Your task to perform on an android device: Is it going to rain today? Image 0: 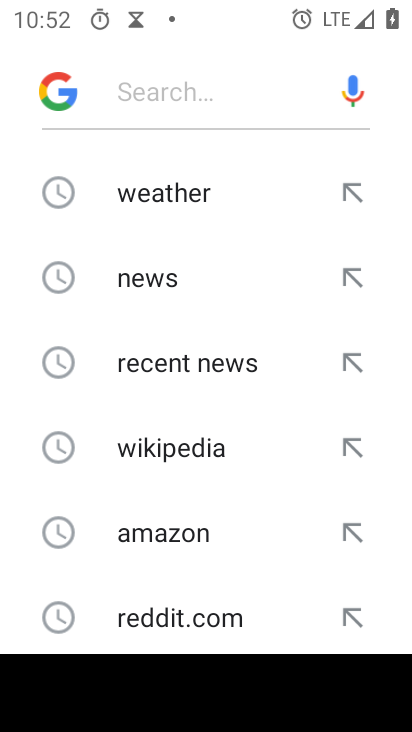
Step 0: press home button
Your task to perform on an android device: Is it going to rain today? Image 1: 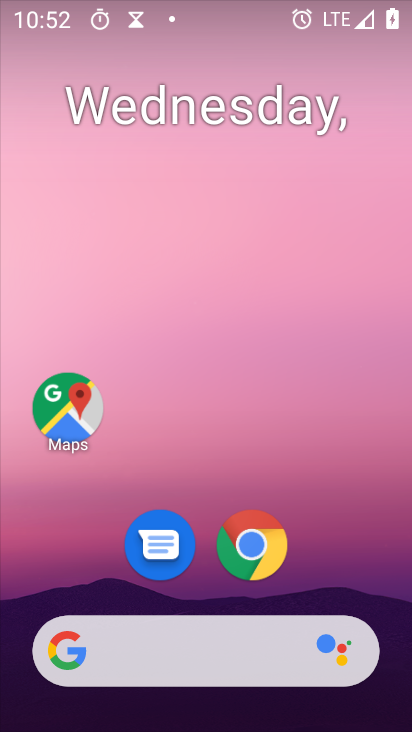
Step 1: click (77, 652)
Your task to perform on an android device: Is it going to rain today? Image 2: 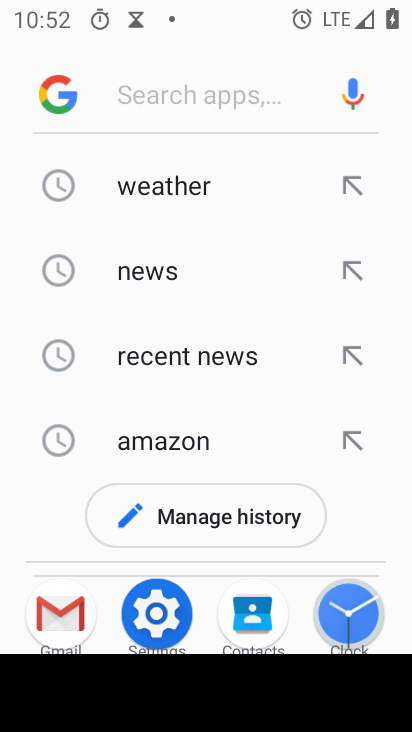
Step 2: click (165, 189)
Your task to perform on an android device: Is it going to rain today? Image 3: 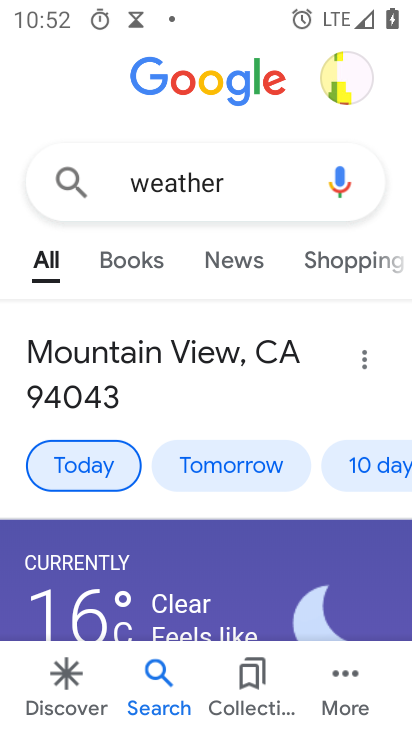
Step 3: task complete